Your task to perform on an android device: Clear all items from cart on bestbuy. Search for "jbl flip 4" on bestbuy, select the first entry, add it to the cart, then select checkout. Image 0: 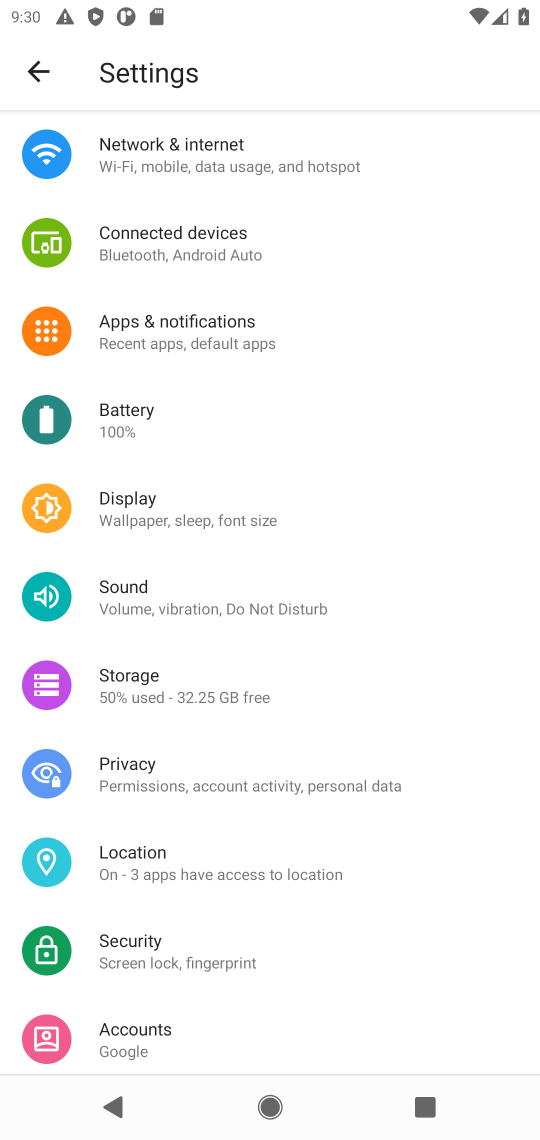
Step 0: press home button
Your task to perform on an android device: Clear all items from cart on bestbuy. Search for "jbl flip 4" on bestbuy, select the first entry, add it to the cart, then select checkout. Image 1: 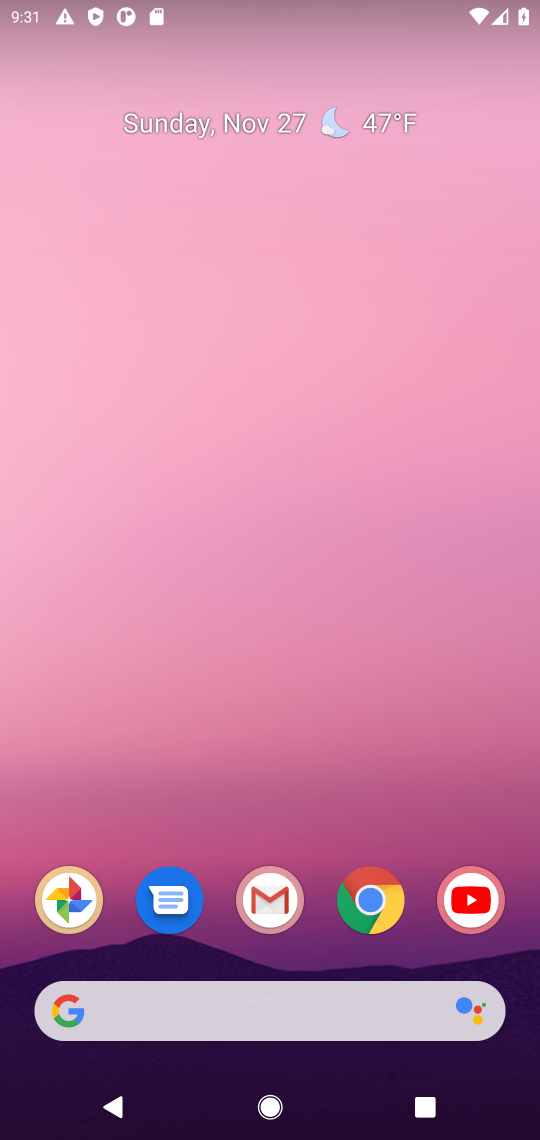
Step 1: click (375, 906)
Your task to perform on an android device: Clear all items from cart on bestbuy. Search for "jbl flip 4" on bestbuy, select the first entry, add it to the cart, then select checkout. Image 2: 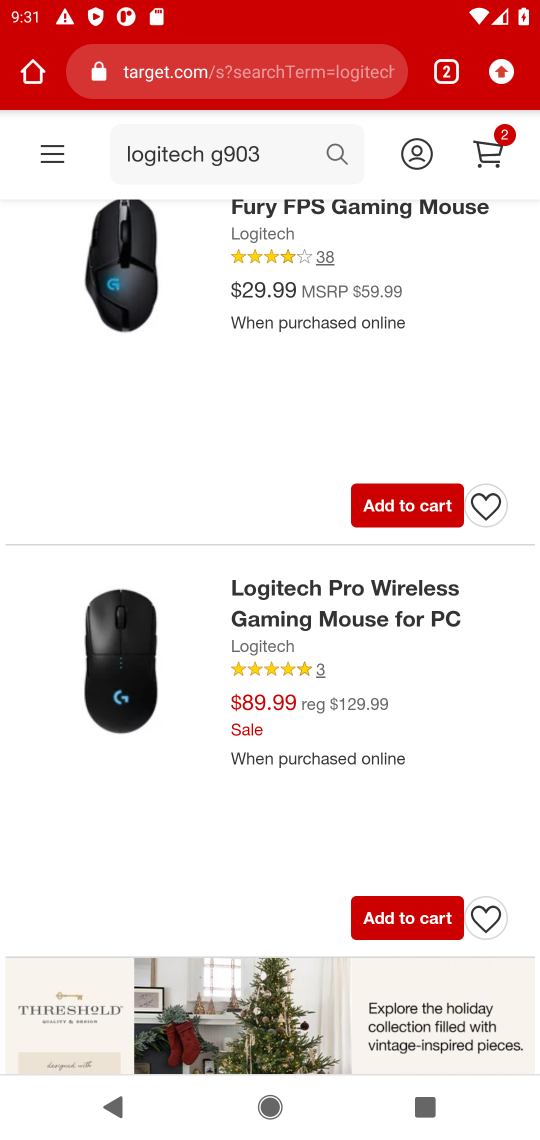
Step 2: click (246, 74)
Your task to perform on an android device: Clear all items from cart on bestbuy. Search for "jbl flip 4" on bestbuy, select the first entry, add it to the cart, then select checkout. Image 3: 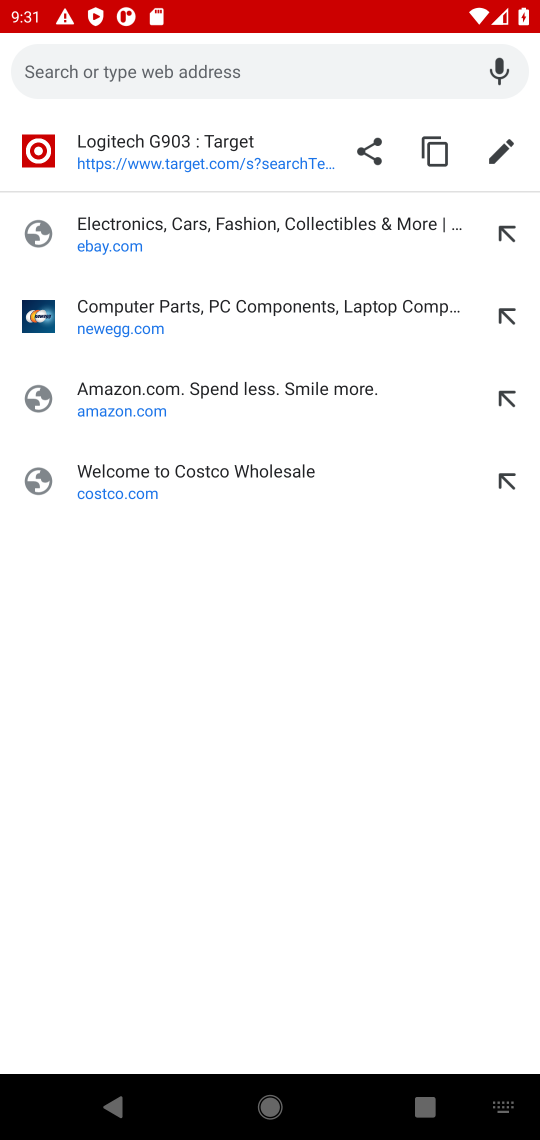
Step 3: type "bestbuy.com"
Your task to perform on an android device: Clear all items from cart on bestbuy. Search for "jbl flip 4" on bestbuy, select the first entry, add it to the cart, then select checkout. Image 4: 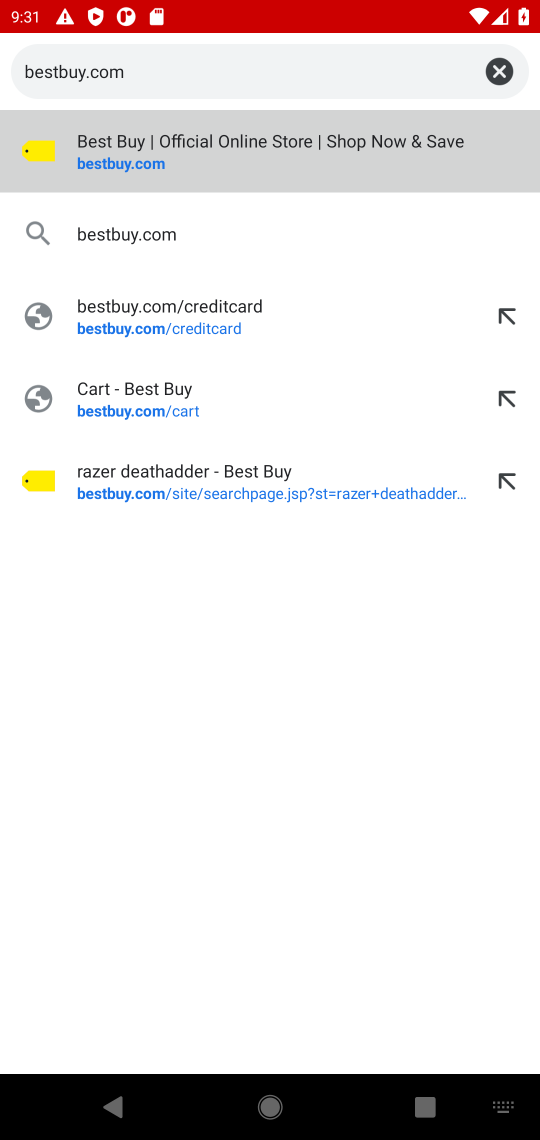
Step 4: click (140, 156)
Your task to perform on an android device: Clear all items from cart on bestbuy. Search for "jbl flip 4" on bestbuy, select the first entry, add it to the cart, then select checkout. Image 5: 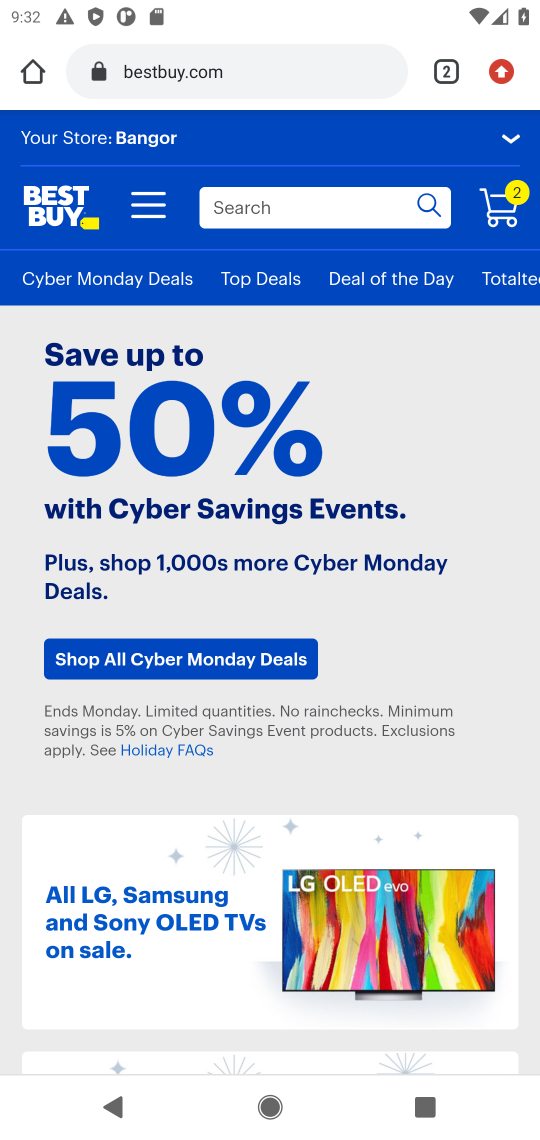
Step 5: click (503, 211)
Your task to perform on an android device: Clear all items from cart on bestbuy. Search for "jbl flip 4" on bestbuy, select the first entry, add it to the cart, then select checkout. Image 6: 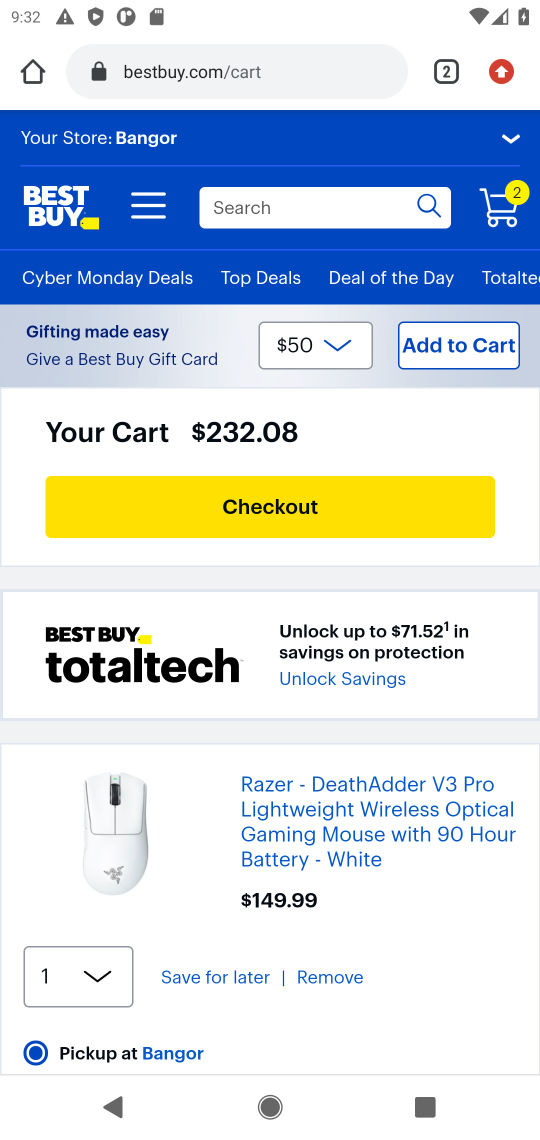
Step 6: click (333, 977)
Your task to perform on an android device: Clear all items from cart on bestbuy. Search for "jbl flip 4" on bestbuy, select the first entry, add it to the cart, then select checkout. Image 7: 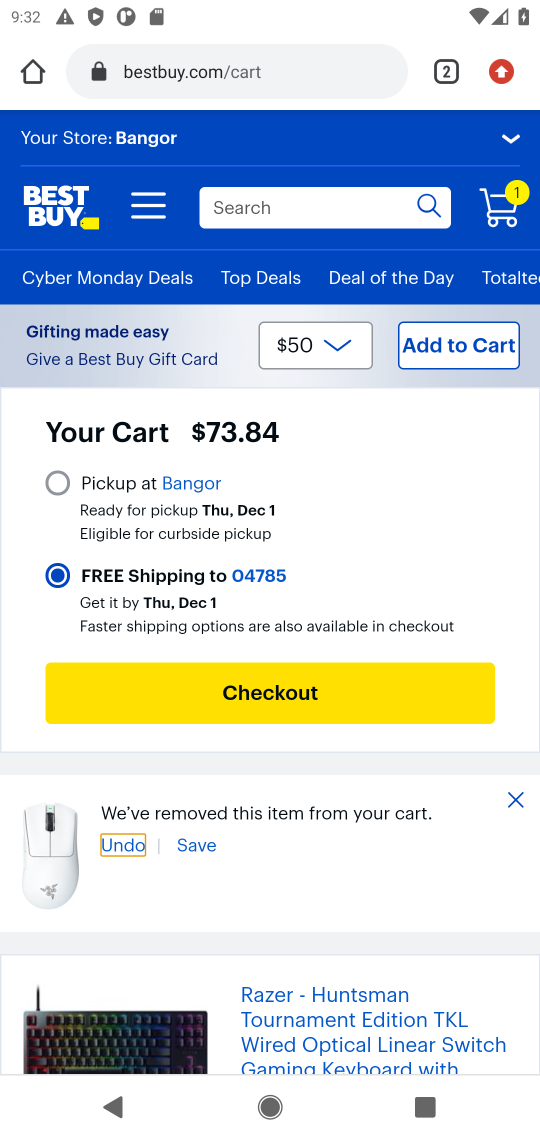
Step 7: drag from (283, 864) to (311, 604)
Your task to perform on an android device: Clear all items from cart on bestbuy. Search for "jbl flip 4" on bestbuy, select the first entry, add it to the cart, then select checkout. Image 8: 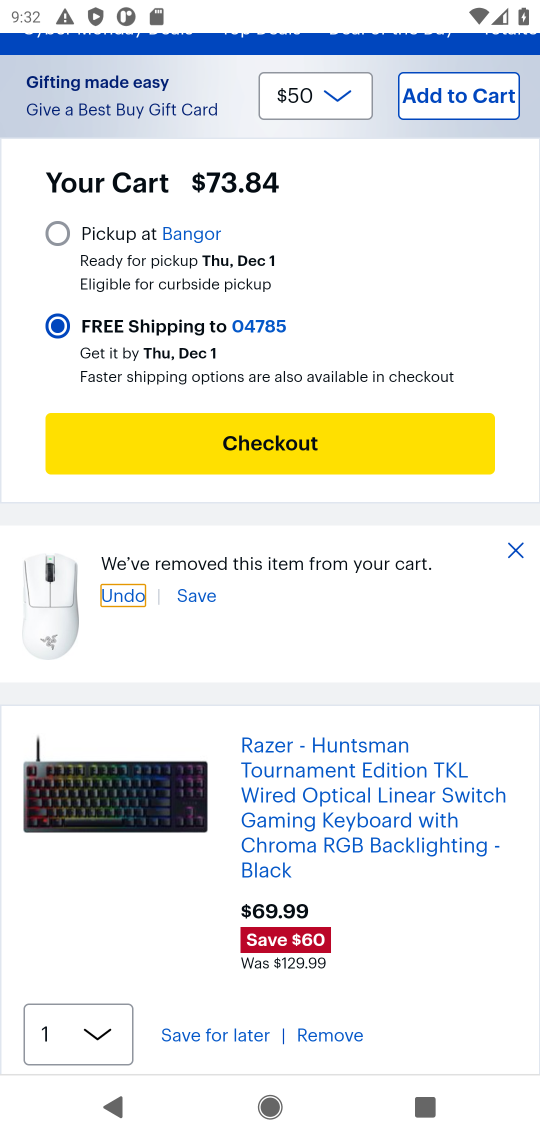
Step 8: click (318, 1026)
Your task to perform on an android device: Clear all items from cart on bestbuy. Search for "jbl flip 4" on bestbuy, select the first entry, add it to the cart, then select checkout. Image 9: 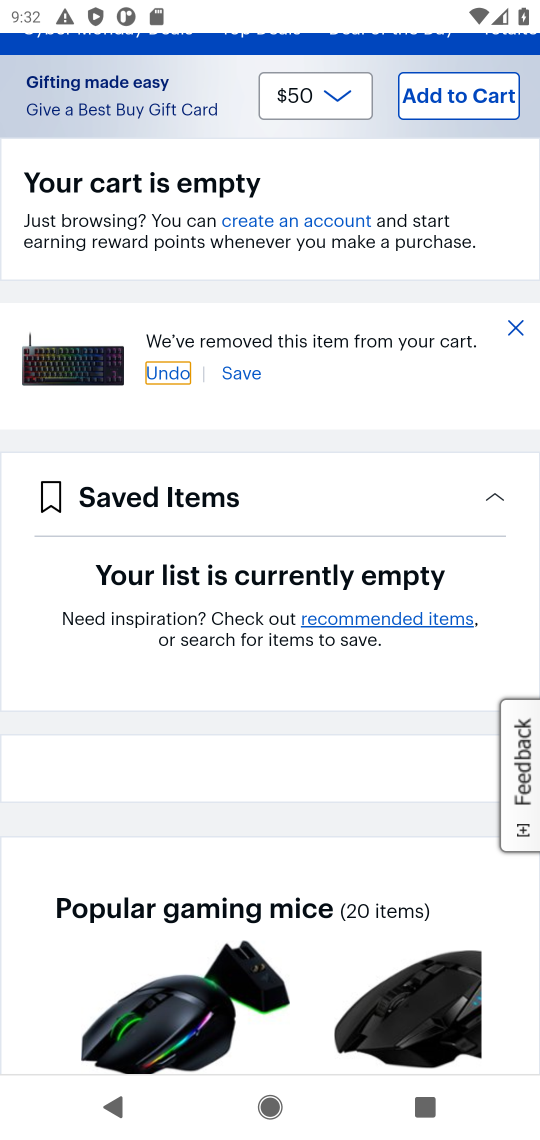
Step 9: drag from (282, 319) to (301, 847)
Your task to perform on an android device: Clear all items from cart on bestbuy. Search for "jbl flip 4" on bestbuy, select the first entry, add it to the cart, then select checkout. Image 10: 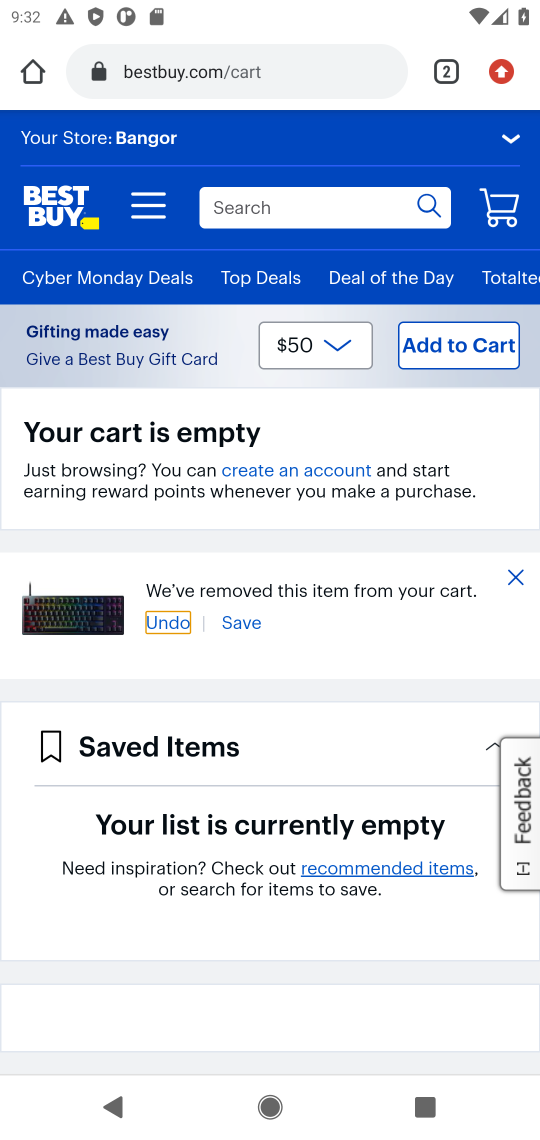
Step 10: click (241, 213)
Your task to perform on an android device: Clear all items from cart on bestbuy. Search for "jbl flip 4" on bestbuy, select the first entry, add it to the cart, then select checkout. Image 11: 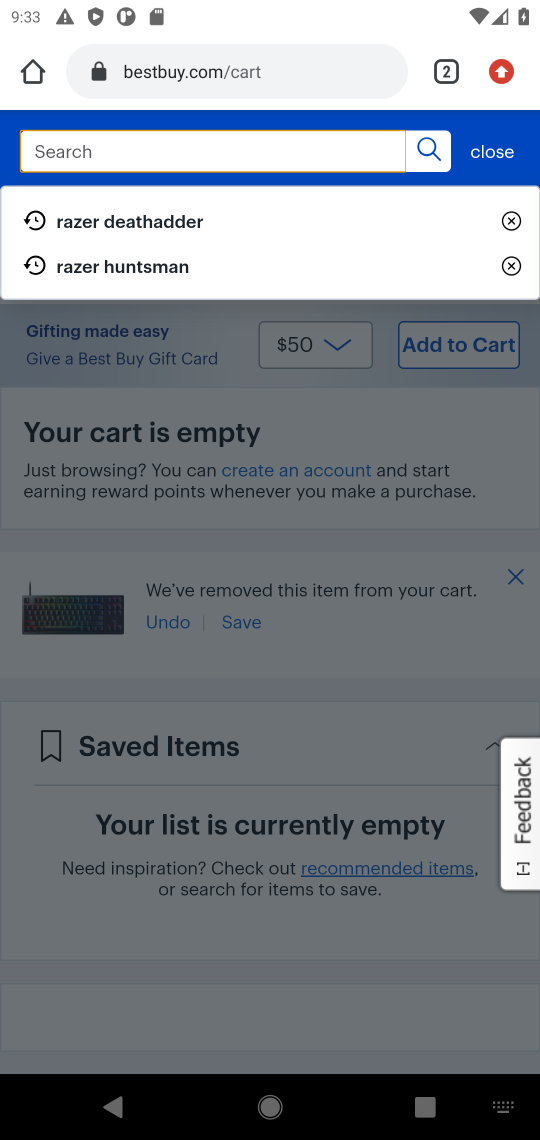
Step 11: type "jbl flip 4"
Your task to perform on an android device: Clear all items from cart on bestbuy. Search for "jbl flip 4" on bestbuy, select the first entry, add it to the cart, then select checkout. Image 12: 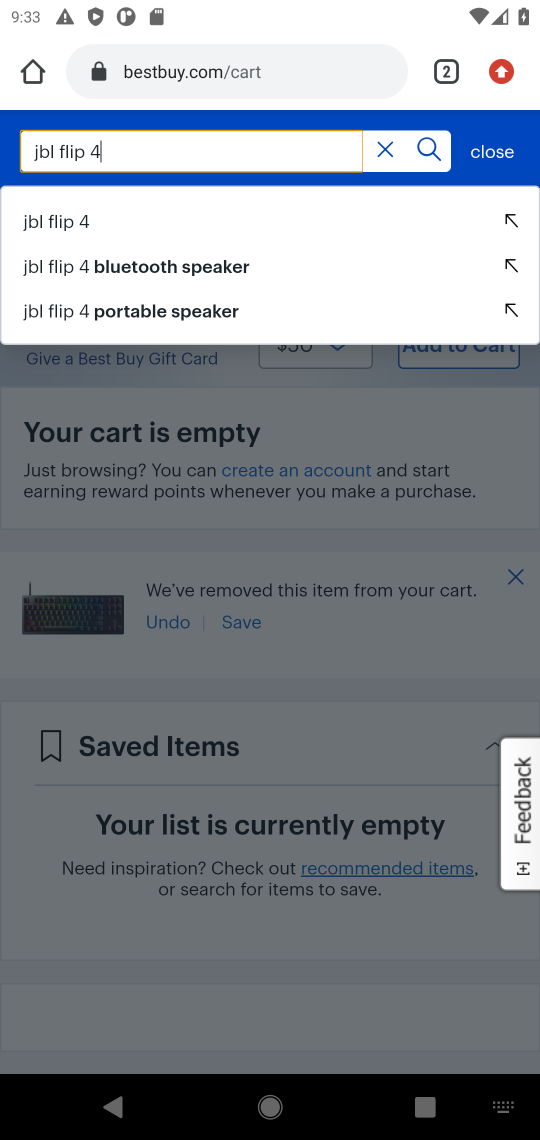
Step 12: click (73, 230)
Your task to perform on an android device: Clear all items from cart on bestbuy. Search for "jbl flip 4" on bestbuy, select the first entry, add it to the cart, then select checkout. Image 13: 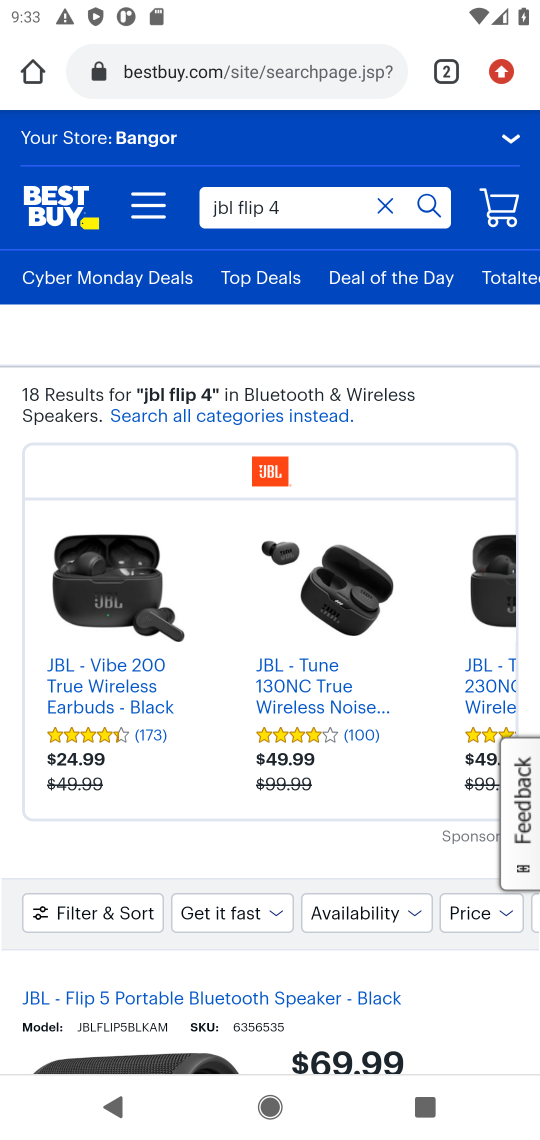
Step 13: task complete